Your task to perform on an android device: toggle sleep mode Image 0: 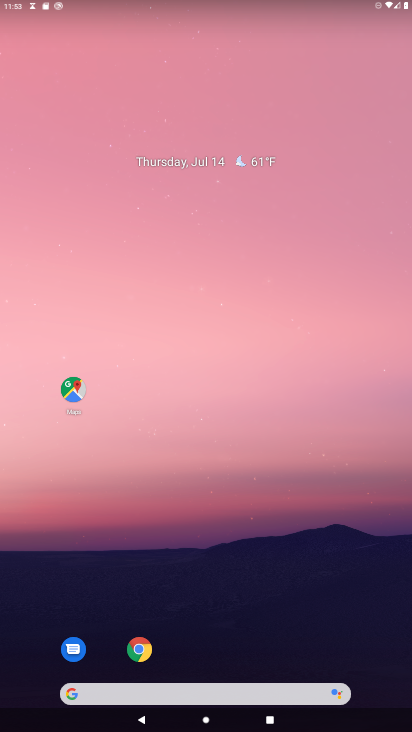
Step 0: drag from (242, 614) to (265, 0)
Your task to perform on an android device: toggle sleep mode Image 1: 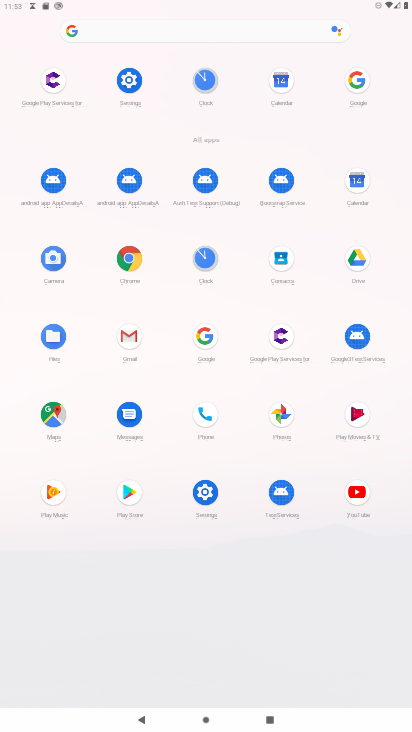
Step 1: click (135, 78)
Your task to perform on an android device: toggle sleep mode Image 2: 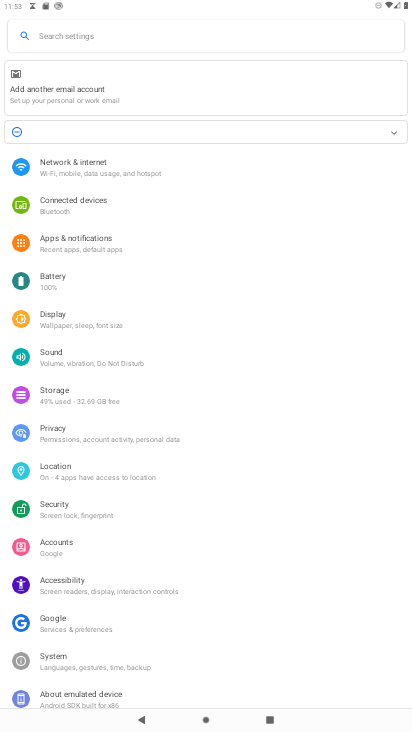
Step 2: click (62, 307)
Your task to perform on an android device: toggle sleep mode Image 3: 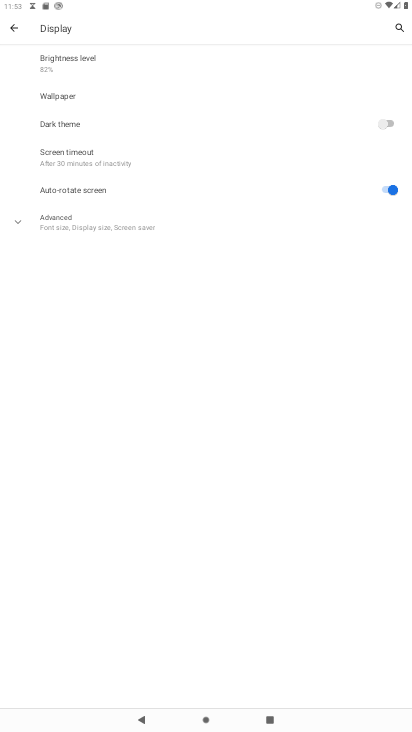
Step 3: click (21, 225)
Your task to perform on an android device: toggle sleep mode Image 4: 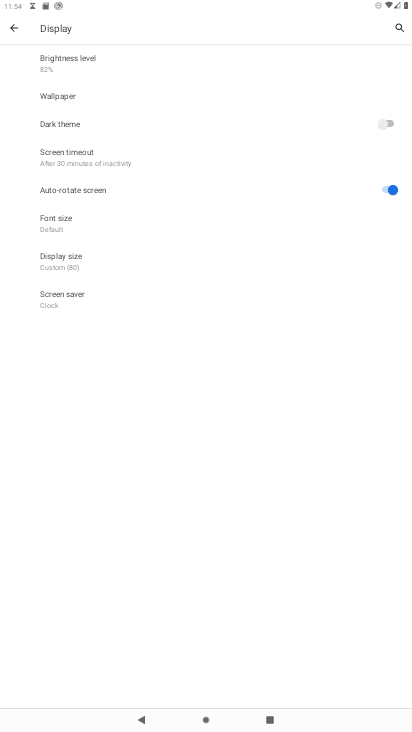
Step 4: task complete